Your task to perform on an android device: uninstall "Duolingo: language lessons" Image 0: 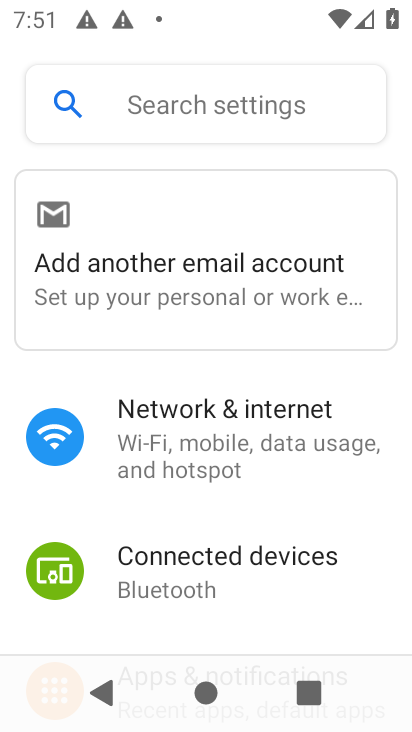
Step 0: press home button
Your task to perform on an android device: uninstall "Duolingo: language lessons" Image 1: 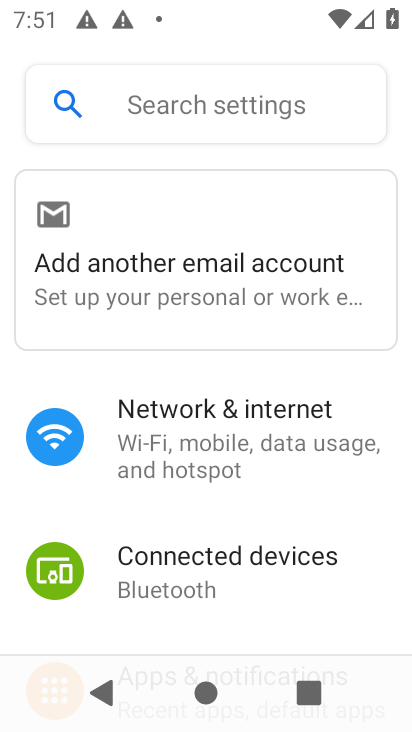
Step 1: drag from (170, 255) to (212, 88)
Your task to perform on an android device: uninstall "Duolingo: language lessons" Image 2: 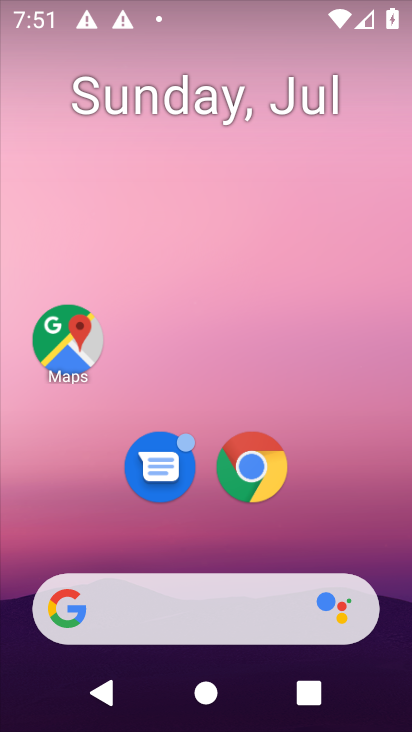
Step 2: drag from (210, 540) to (125, 4)
Your task to perform on an android device: uninstall "Duolingo: language lessons" Image 3: 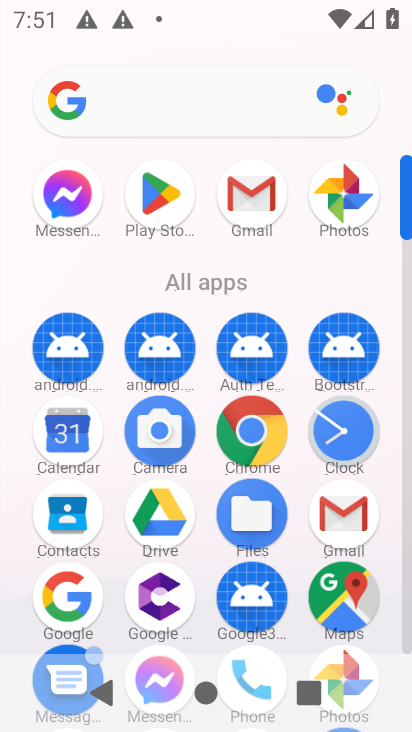
Step 3: click (146, 196)
Your task to perform on an android device: uninstall "Duolingo: language lessons" Image 4: 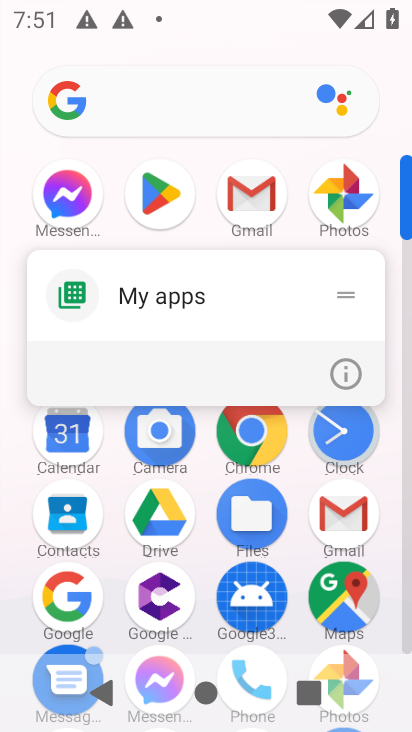
Step 4: click (338, 371)
Your task to perform on an android device: uninstall "Duolingo: language lessons" Image 5: 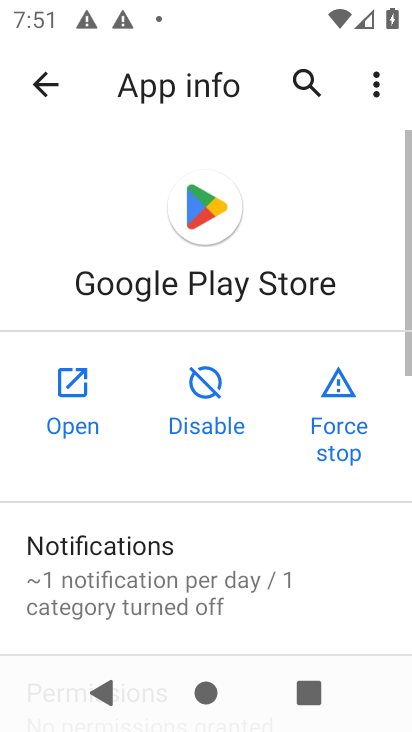
Step 5: click (62, 389)
Your task to perform on an android device: uninstall "Duolingo: language lessons" Image 6: 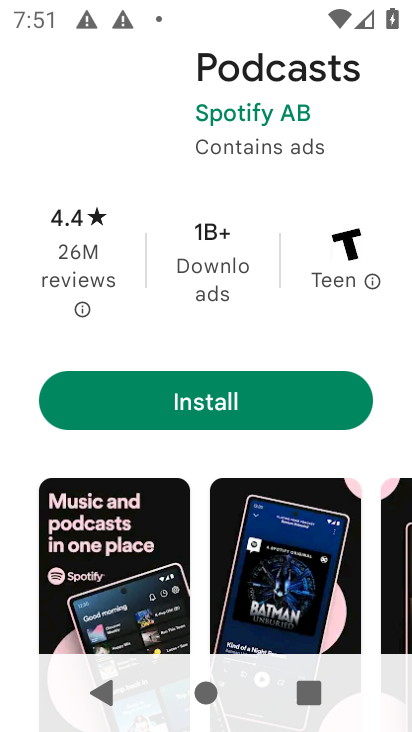
Step 6: drag from (201, 555) to (211, 596)
Your task to perform on an android device: uninstall "Duolingo: language lessons" Image 7: 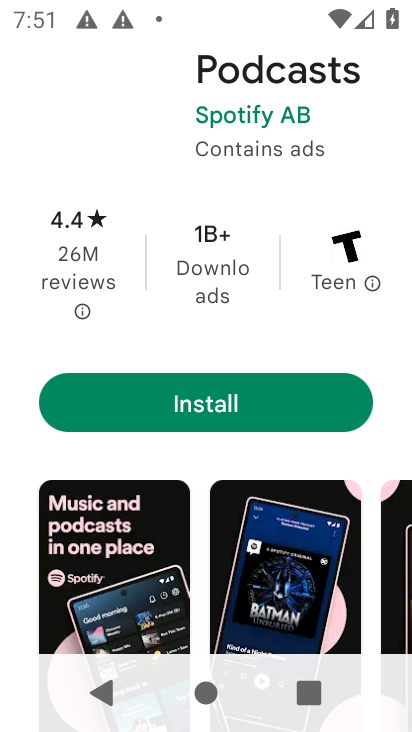
Step 7: drag from (153, 483) to (341, 472)
Your task to perform on an android device: uninstall "Duolingo: language lessons" Image 8: 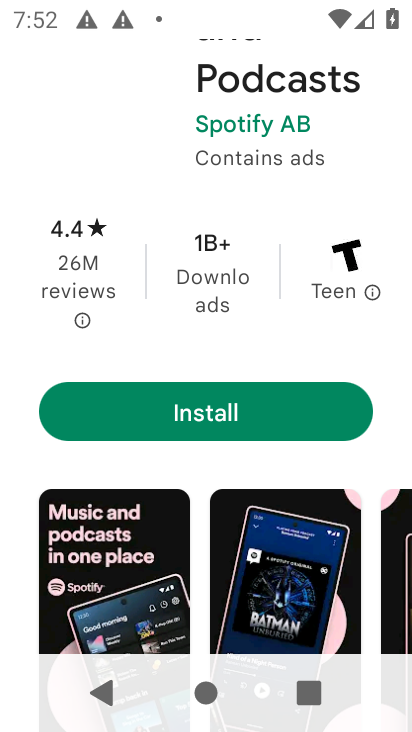
Step 8: drag from (158, 148) to (220, 588)
Your task to perform on an android device: uninstall "Duolingo: language lessons" Image 9: 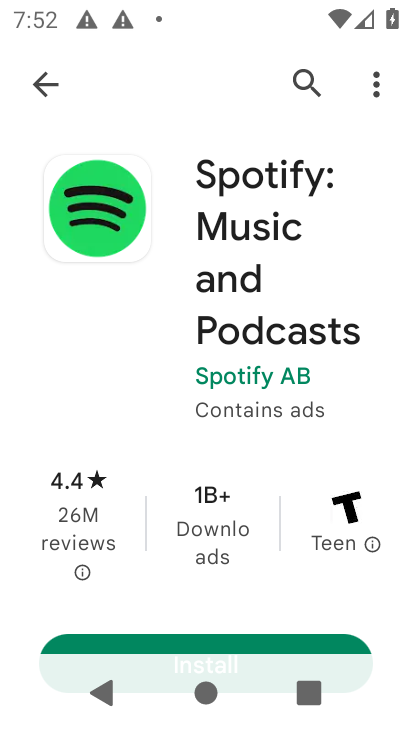
Step 9: click (295, 83)
Your task to perform on an android device: uninstall "Duolingo: language lessons" Image 10: 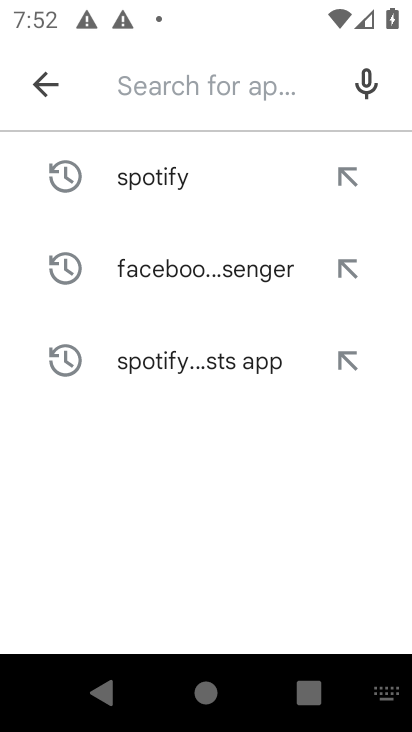
Step 10: type "Duolingo: language lessons"
Your task to perform on an android device: uninstall "Duolingo: language lessons" Image 11: 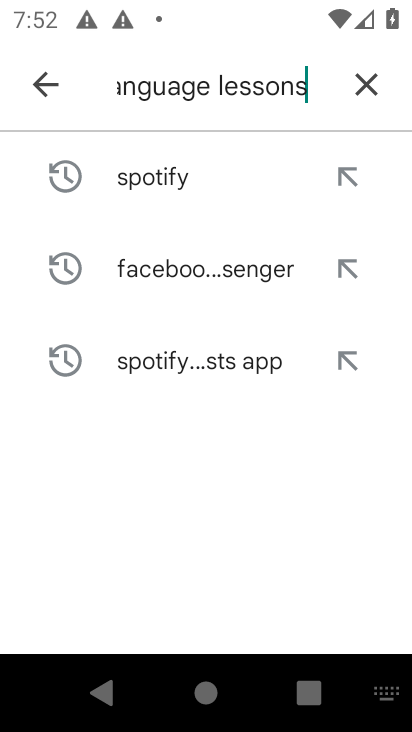
Step 11: type ""
Your task to perform on an android device: uninstall "Duolingo: language lessons" Image 12: 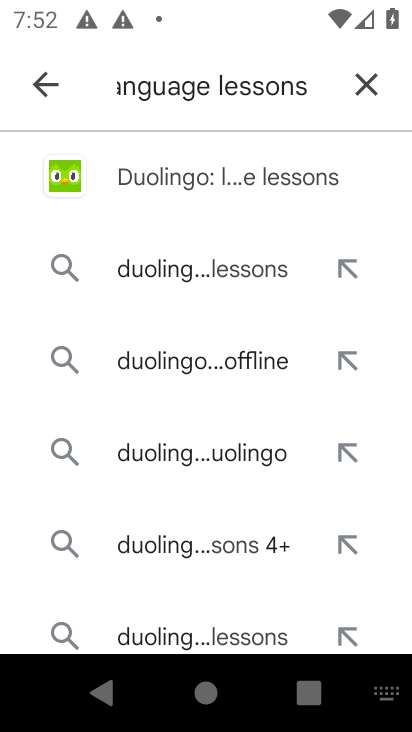
Step 12: click (170, 190)
Your task to perform on an android device: uninstall "Duolingo: language lessons" Image 13: 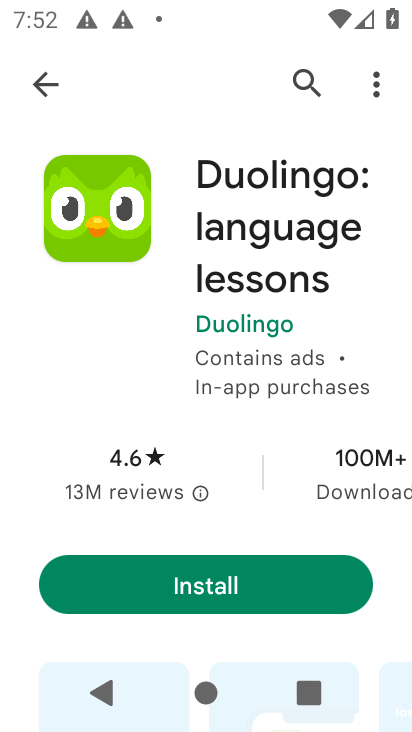
Step 13: task complete